Your task to perform on an android device: read, delete, or share a saved page in the chrome app Image 0: 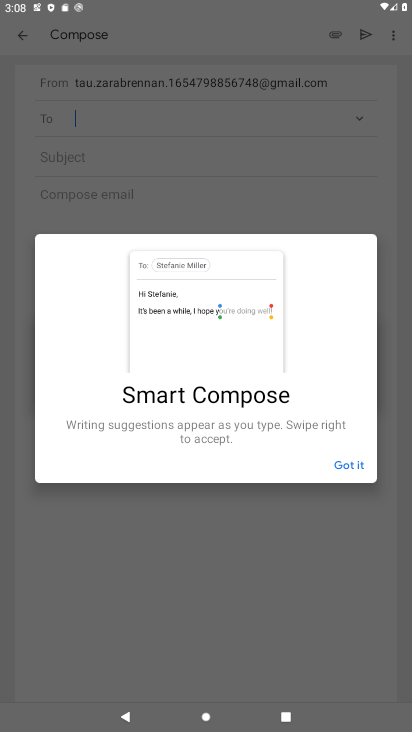
Step 0: press home button
Your task to perform on an android device: read, delete, or share a saved page in the chrome app Image 1: 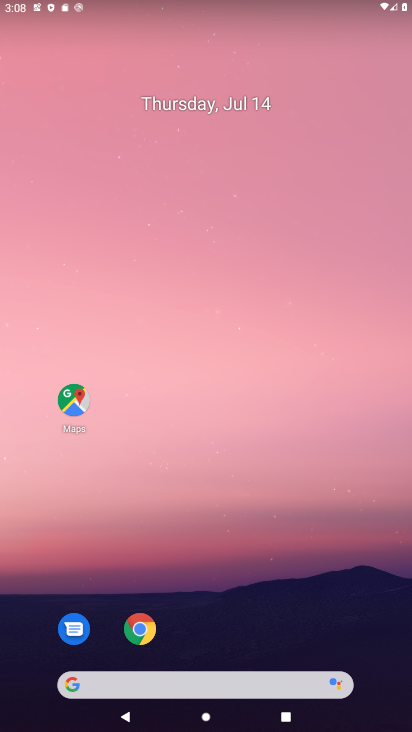
Step 1: click (138, 626)
Your task to perform on an android device: read, delete, or share a saved page in the chrome app Image 2: 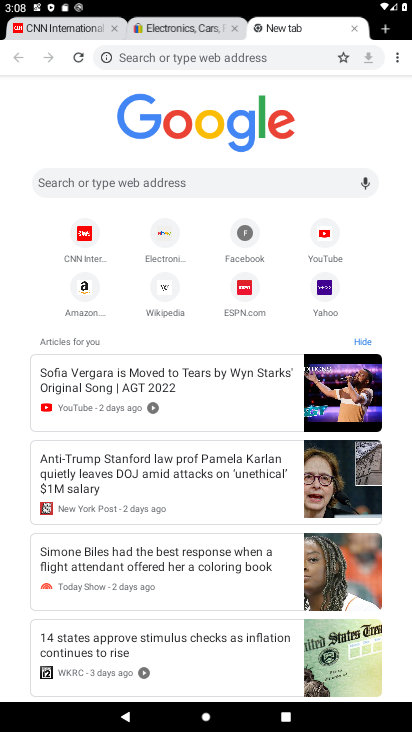
Step 2: click (398, 72)
Your task to perform on an android device: read, delete, or share a saved page in the chrome app Image 3: 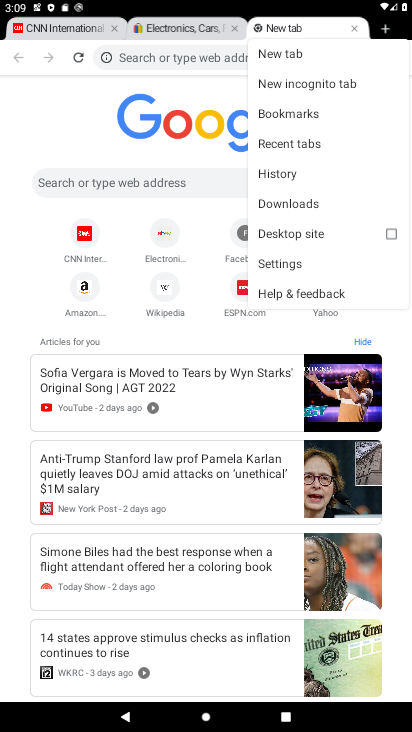
Step 3: click (312, 200)
Your task to perform on an android device: read, delete, or share a saved page in the chrome app Image 4: 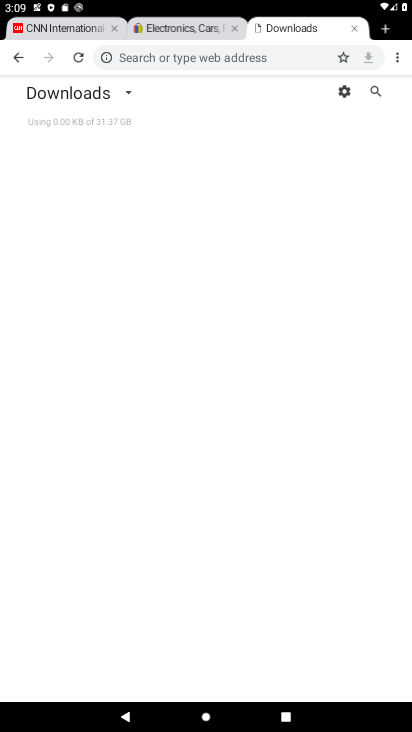
Step 4: task complete